Your task to perform on an android device: search for starred emails in the gmail app Image 0: 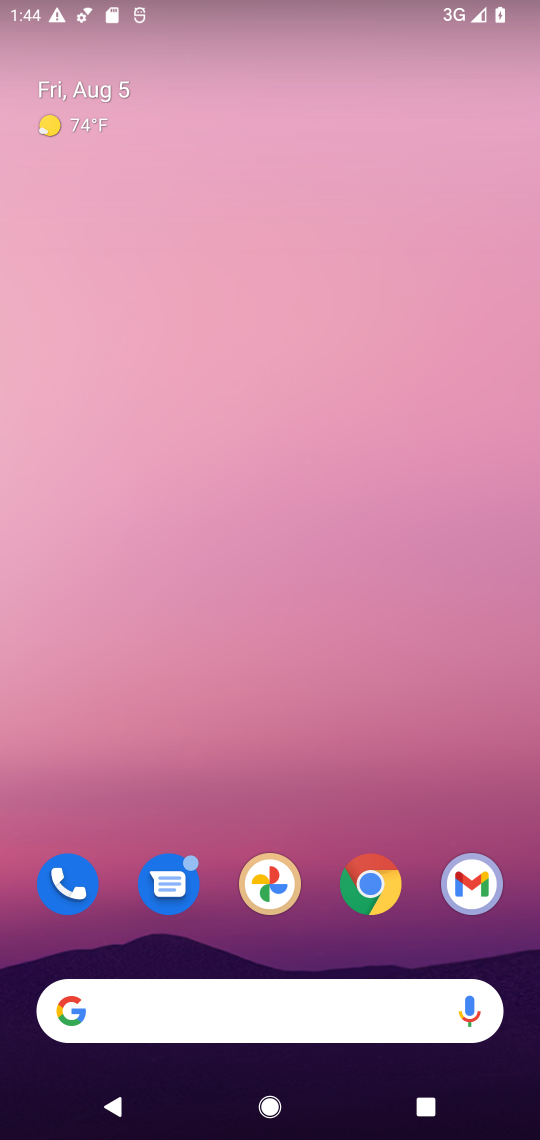
Step 0: drag from (519, 931) to (274, 121)
Your task to perform on an android device: search for starred emails in the gmail app Image 1: 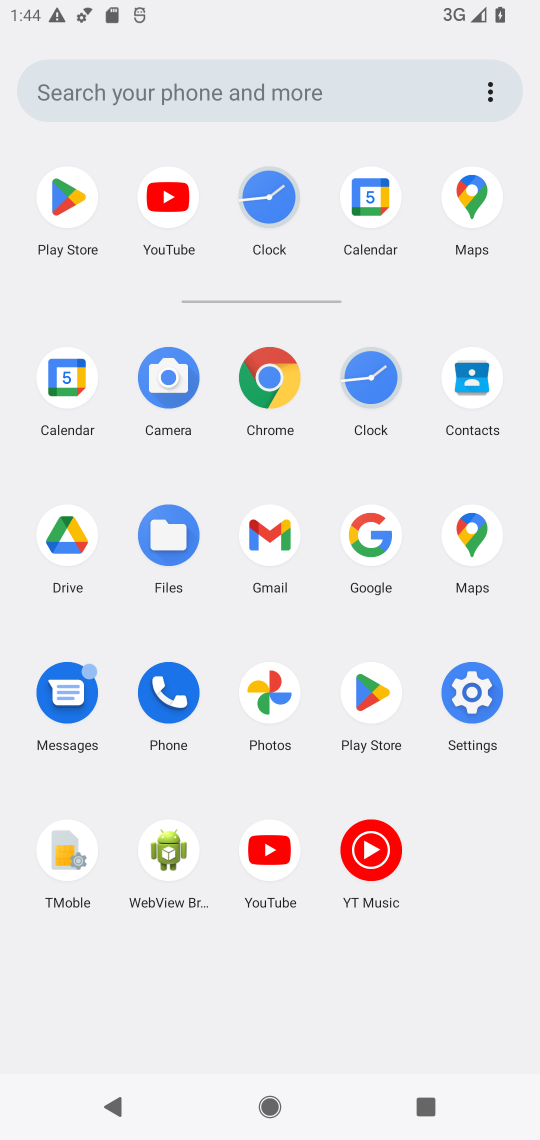
Step 1: click (279, 532)
Your task to perform on an android device: search for starred emails in the gmail app Image 2: 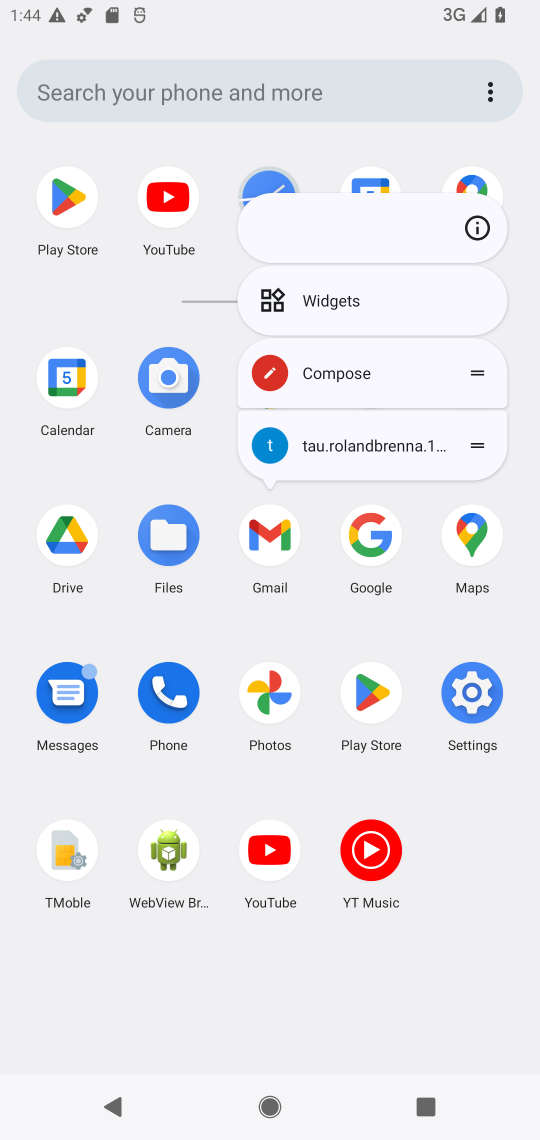
Step 2: click (278, 531)
Your task to perform on an android device: search for starred emails in the gmail app Image 3: 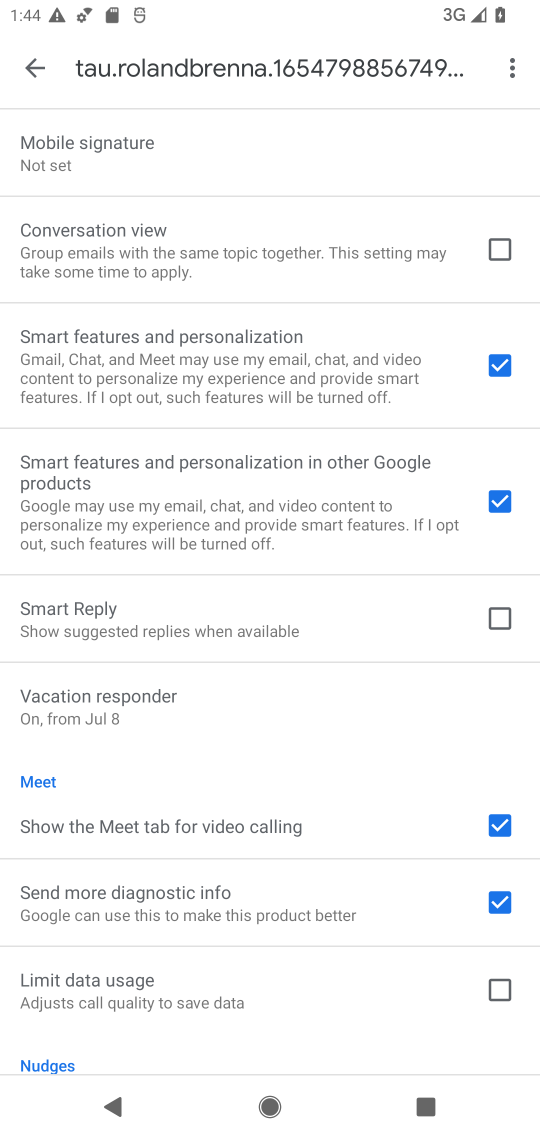
Step 3: press back button
Your task to perform on an android device: search for starred emails in the gmail app Image 4: 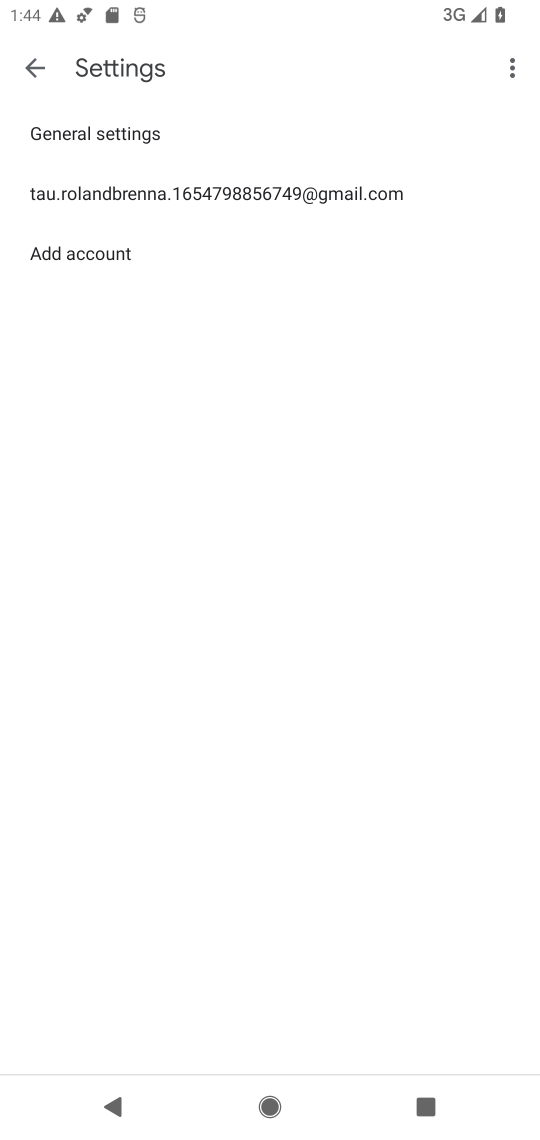
Step 4: press back button
Your task to perform on an android device: search for starred emails in the gmail app Image 5: 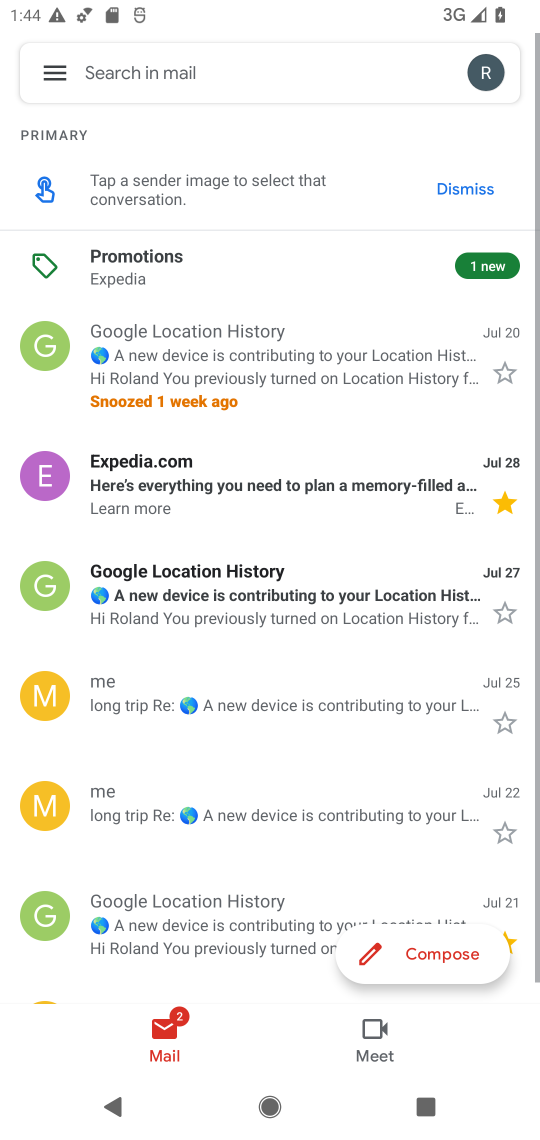
Step 5: click (57, 73)
Your task to perform on an android device: search for starred emails in the gmail app Image 6: 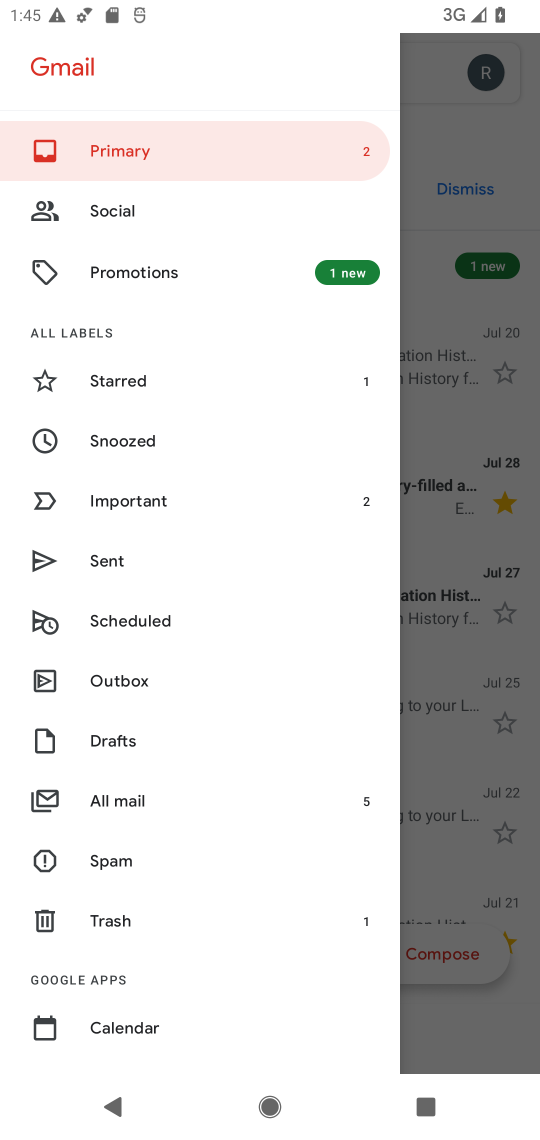
Step 6: click (148, 369)
Your task to perform on an android device: search for starred emails in the gmail app Image 7: 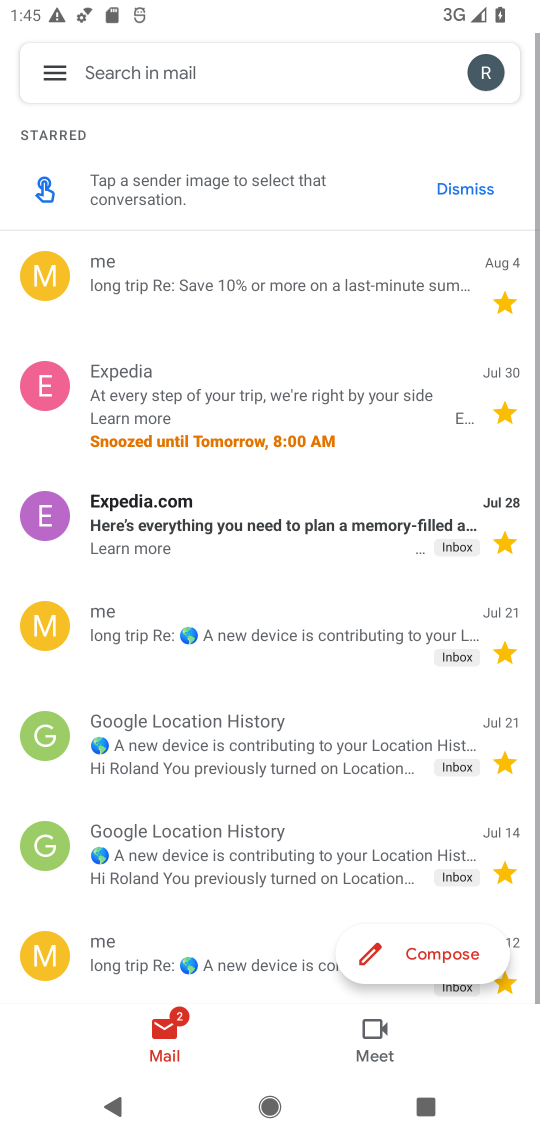
Step 7: task complete